Your task to perform on an android device: turn off priority inbox in the gmail app Image 0: 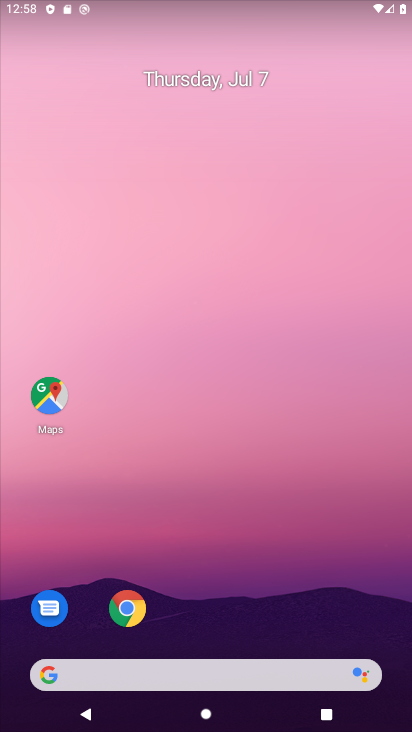
Step 0: drag from (190, 579) to (248, 0)
Your task to perform on an android device: turn off priority inbox in the gmail app Image 1: 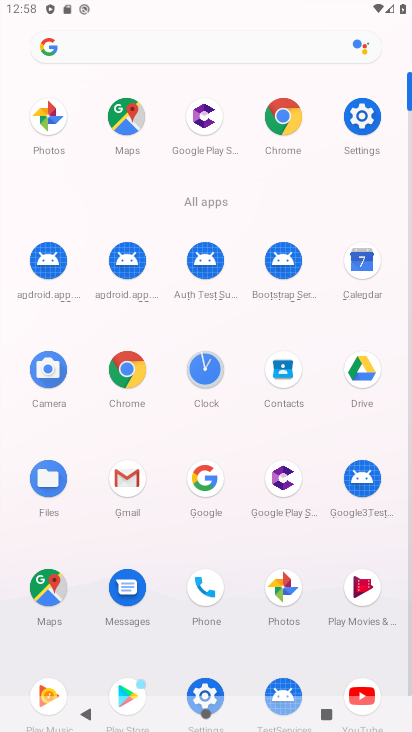
Step 1: click (126, 501)
Your task to perform on an android device: turn off priority inbox in the gmail app Image 2: 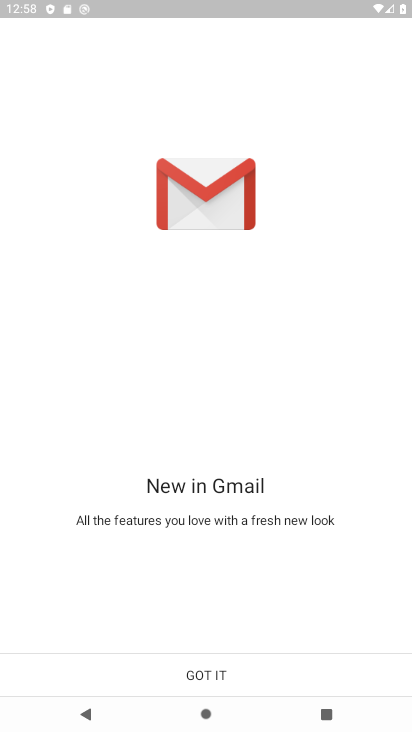
Step 2: click (209, 678)
Your task to perform on an android device: turn off priority inbox in the gmail app Image 3: 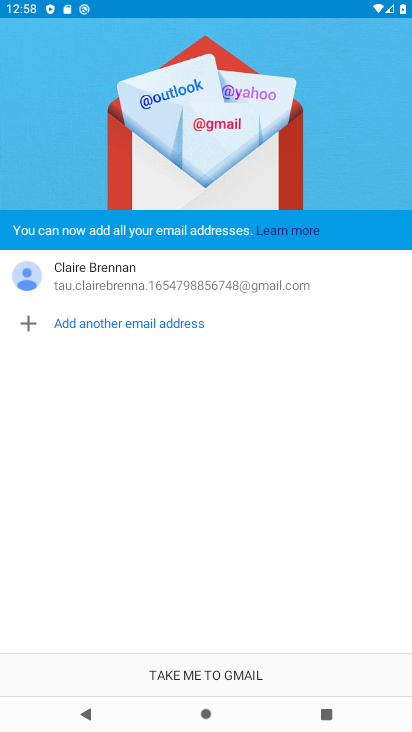
Step 3: click (199, 675)
Your task to perform on an android device: turn off priority inbox in the gmail app Image 4: 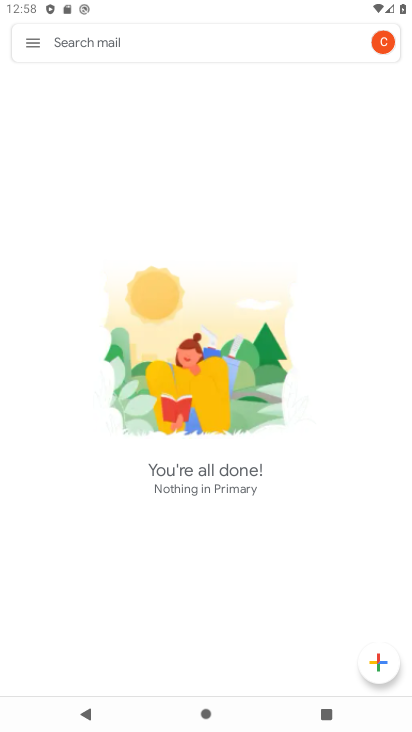
Step 4: click (21, 35)
Your task to perform on an android device: turn off priority inbox in the gmail app Image 5: 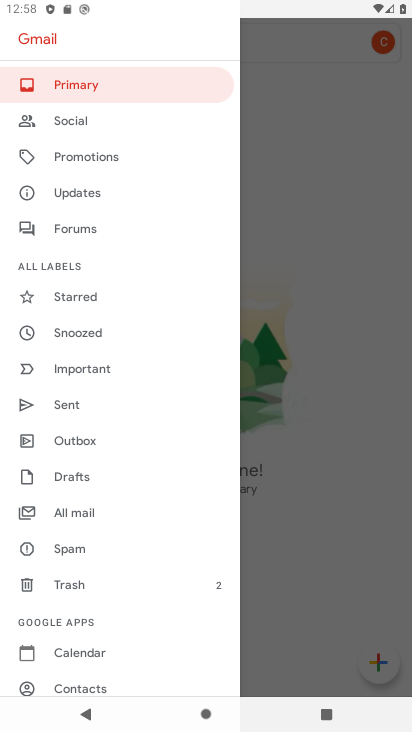
Step 5: drag from (77, 653) to (162, 136)
Your task to perform on an android device: turn off priority inbox in the gmail app Image 6: 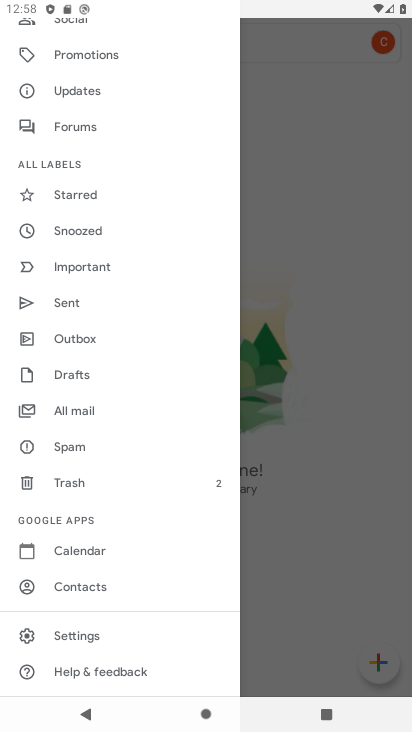
Step 6: click (95, 628)
Your task to perform on an android device: turn off priority inbox in the gmail app Image 7: 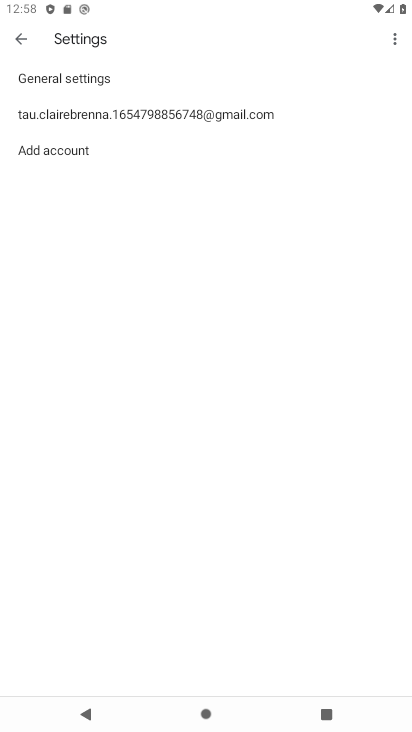
Step 7: click (159, 106)
Your task to perform on an android device: turn off priority inbox in the gmail app Image 8: 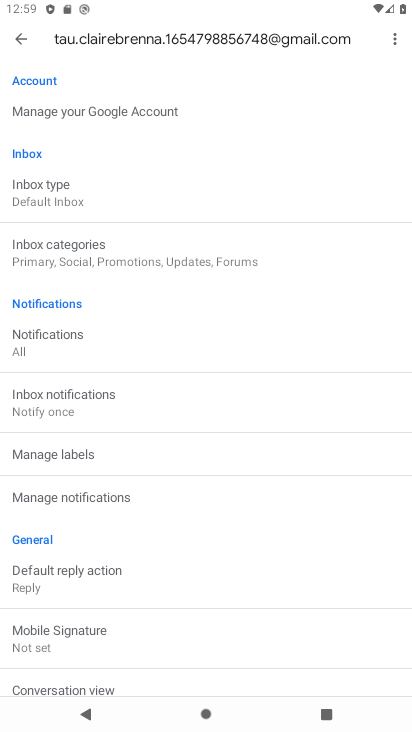
Step 8: click (95, 199)
Your task to perform on an android device: turn off priority inbox in the gmail app Image 9: 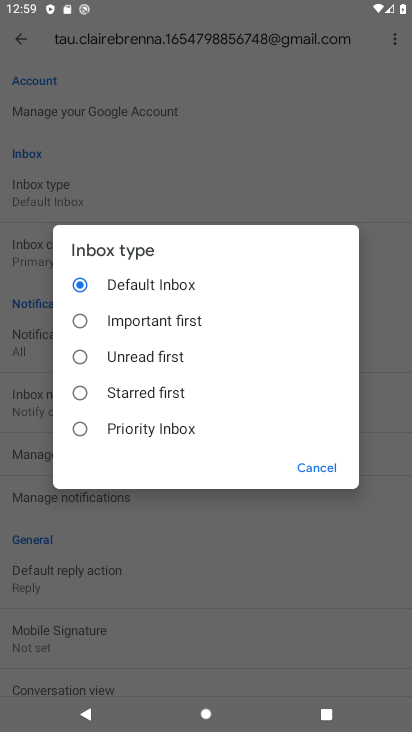
Step 9: task complete